Your task to perform on an android device: Do I have any events this weekend? Image 0: 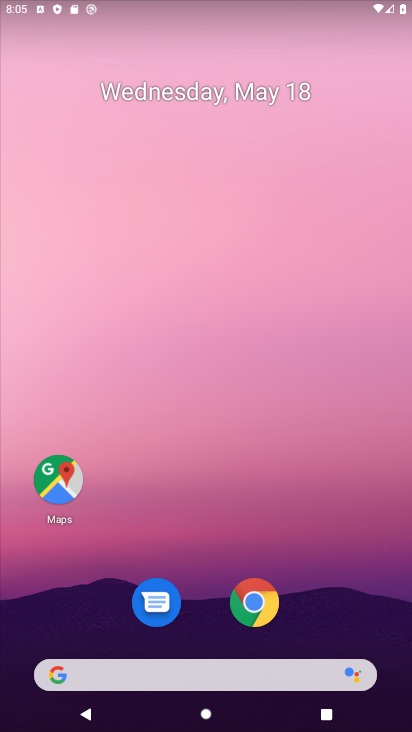
Step 0: drag from (332, 542) to (275, 32)
Your task to perform on an android device: Do I have any events this weekend? Image 1: 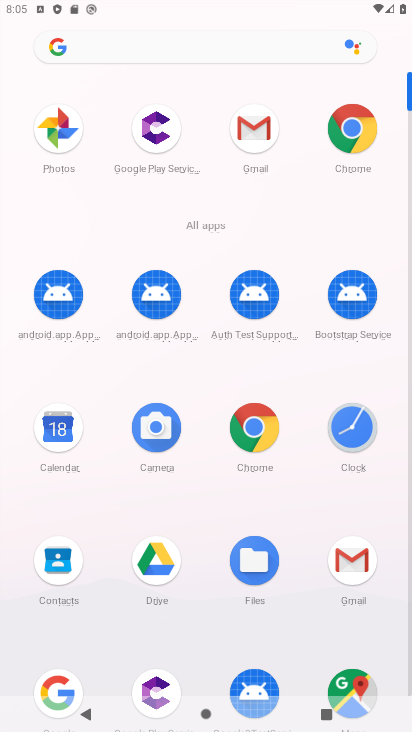
Step 1: click (59, 417)
Your task to perform on an android device: Do I have any events this weekend? Image 2: 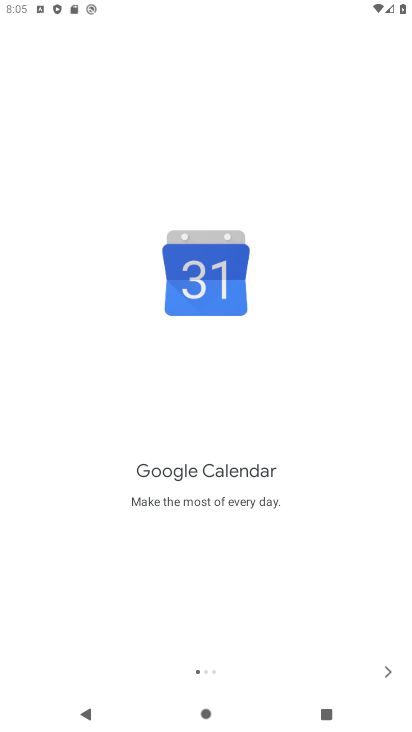
Step 2: click (386, 664)
Your task to perform on an android device: Do I have any events this weekend? Image 3: 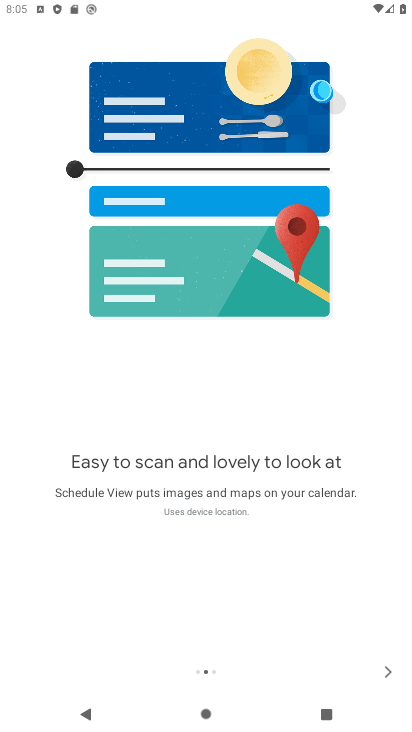
Step 3: click (386, 664)
Your task to perform on an android device: Do I have any events this weekend? Image 4: 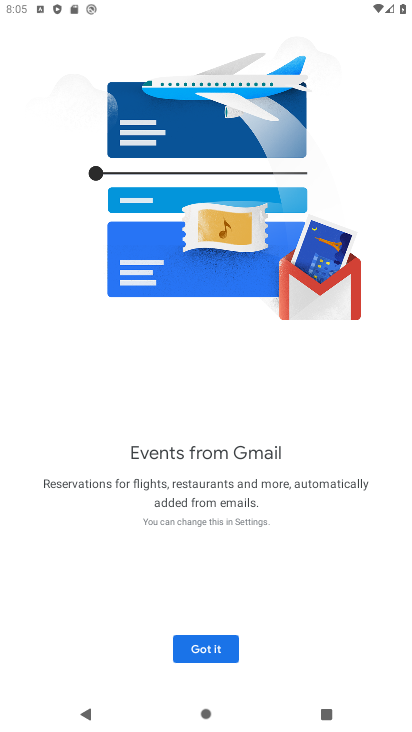
Step 4: click (227, 652)
Your task to perform on an android device: Do I have any events this weekend? Image 5: 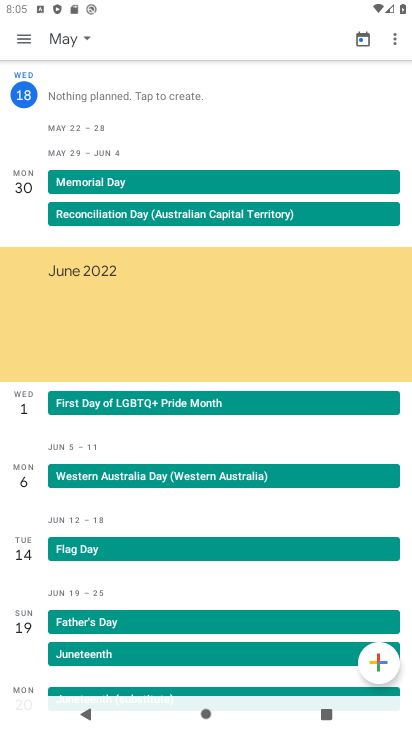
Step 5: click (18, 30)
Your task to perform on an android device: Do I have any events this weekend? Image 6: 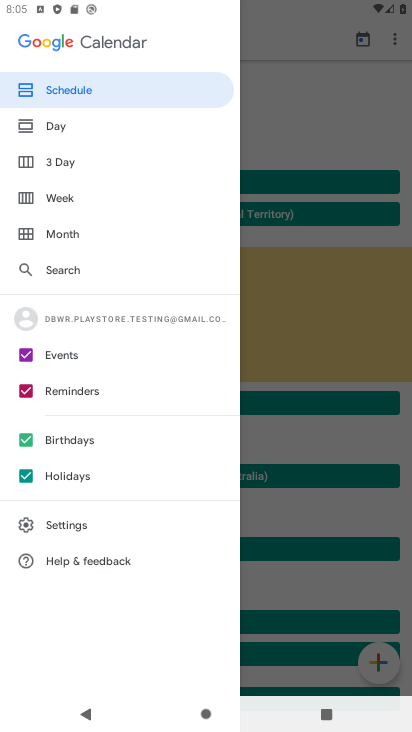
Step 6: click (46, 194)
Your task to perform on an android device: Do I have any events this weekend? Image 7: 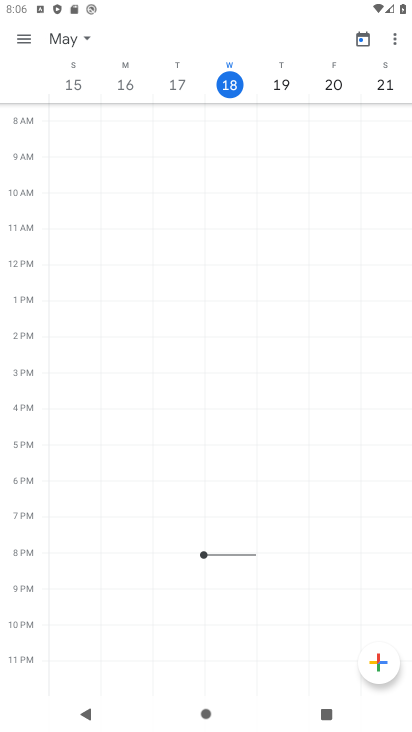
Step 7: click (385, 74)
Your task to perform on an android device: Do I have any events this weekend? Image 8: 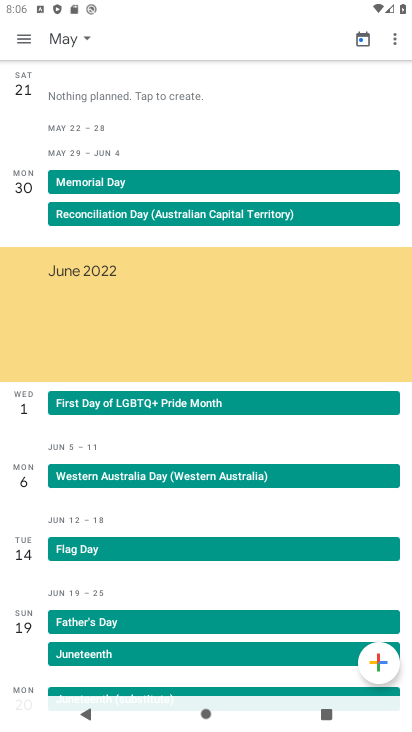
Step 8: task complete